Your task to perform on an android device: empty trash in the gmail app Image 0: 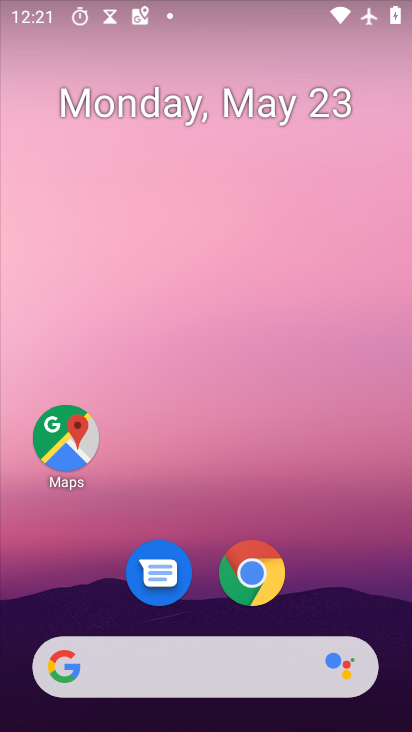
Step 0: press home button
Your task to perform on an android device: empty trash in the gmail app Image 1: 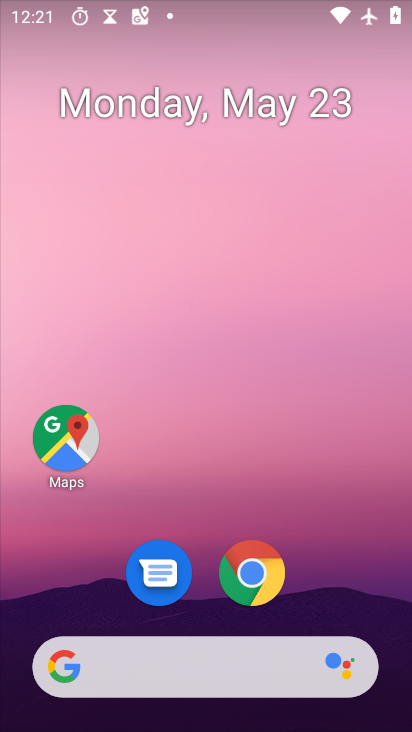
Step 1: drag from (152, 678) to (303, 196)
Your task to perform on an android device: empty trash in the gmail app Image 2: 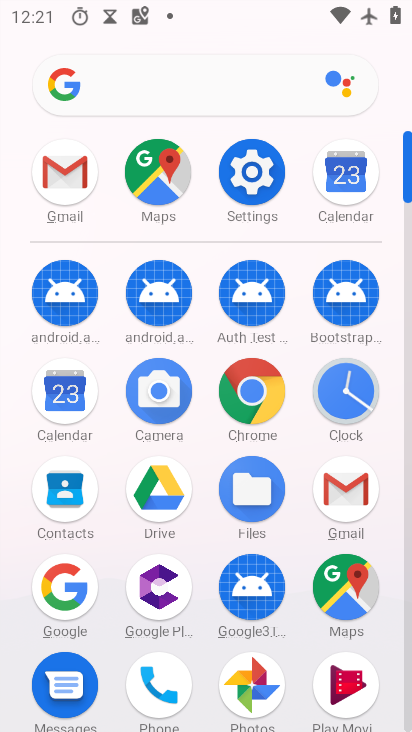
Step 2: click (66, 182)
Your task to perform on an android device: empty trash in the gmail app Image 3: 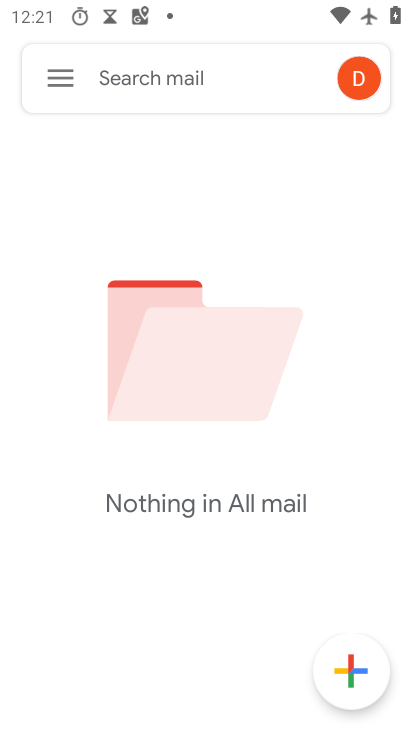
Step 3: click (69, 81)
Your task to perform on an android device: empty trash in the gmail app Image 4: 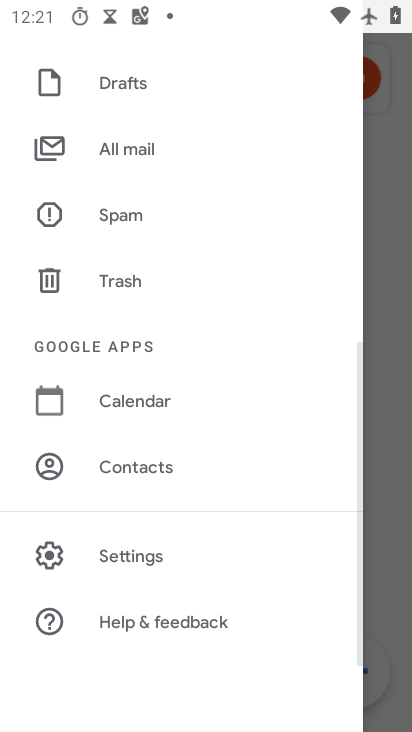
Step 4: click (141, 287)
Your task to perform on an android device: empty trash in the gmail app Image 5: 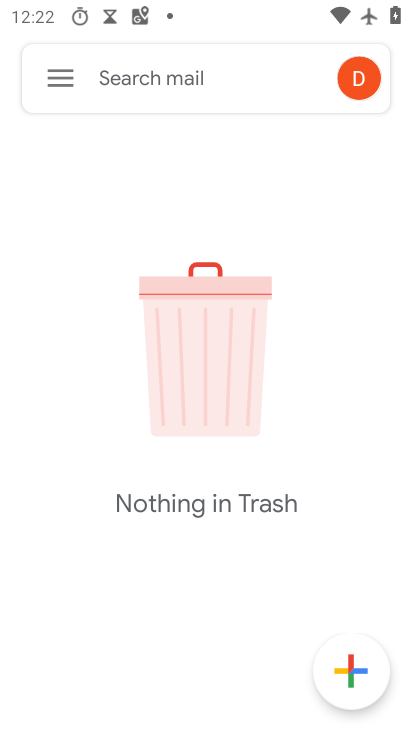
Step 5: task complete